Your task to perform on an android device: open a new tab in the chrome app Image 0: 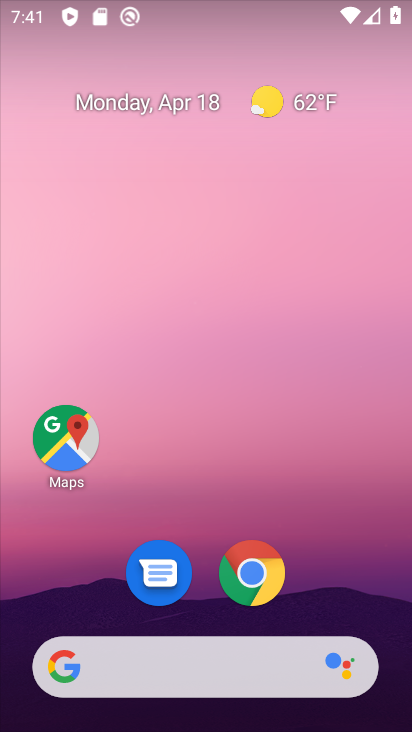
Step 0: click (253, 574)
Your task to perform on an android device: open a new tab in the chrome app Image 1: 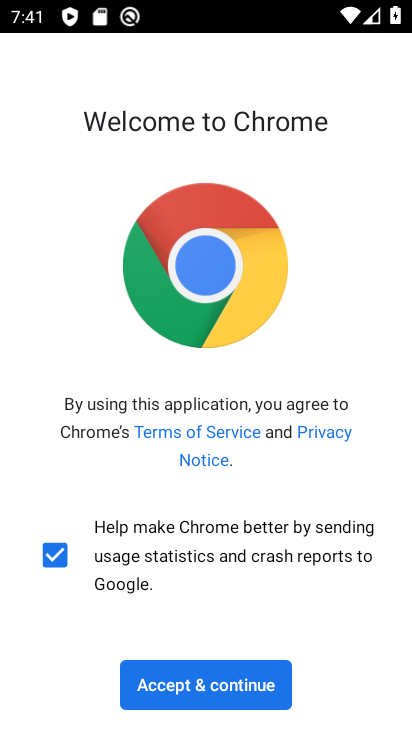
Step 1: click (279, 684)
Your task to perform on an android device: open a new tab in the chrome app Image 2: 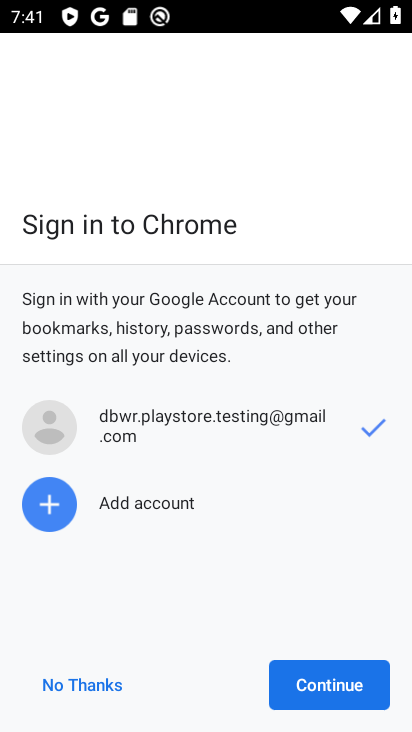
Step 2: click (318, 695)
Your task to perform on an android device: open a new tab in the chrome app Image 3: 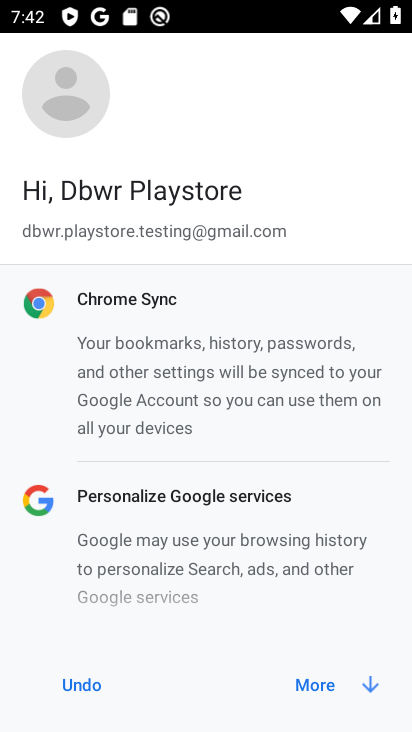
Step 3: click (306, 677)
Your task to perform on an android device: open a new tab in the chrome app Image 4: 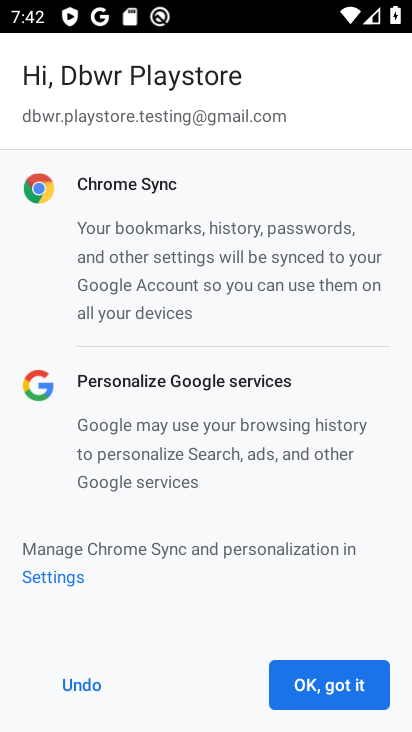
Step 4: click (338, 680)
Your task to perform on an android device: open a new tab in the chrome app Image 5: 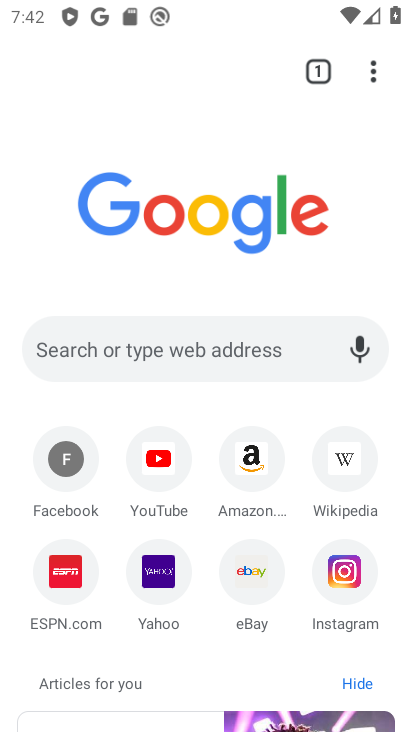
Step 5: click (326, 71)
Your task to perform on an android device: open a new tab in the chrome app Image 6: 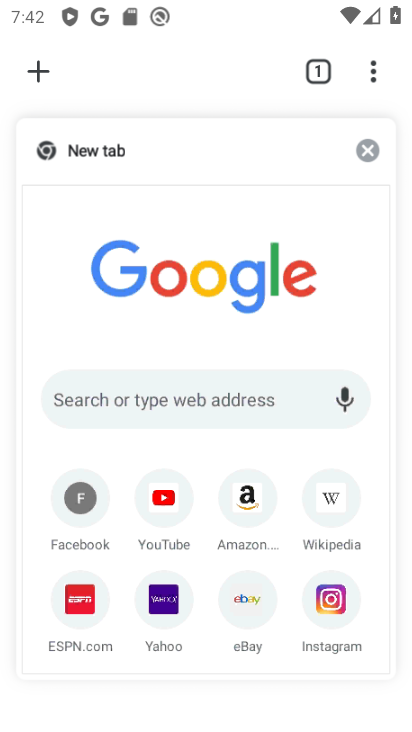
Step 6: click (25, 75)
Your task to perform on an android device: open a new tab in the chrome app Image 7: 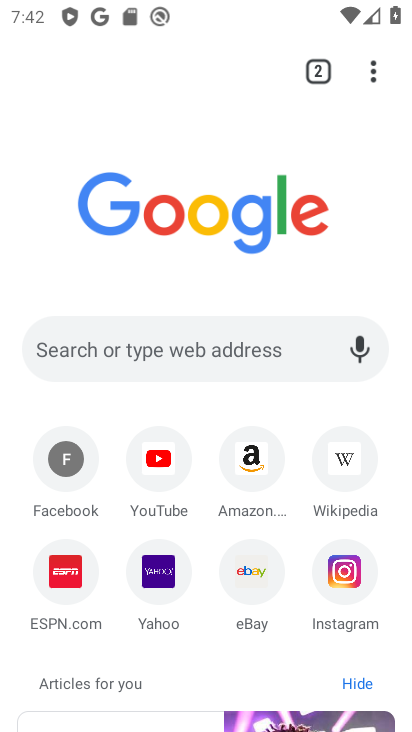
Step 7: task complete